Your task to perform on an android device: change timer sound Image 0: 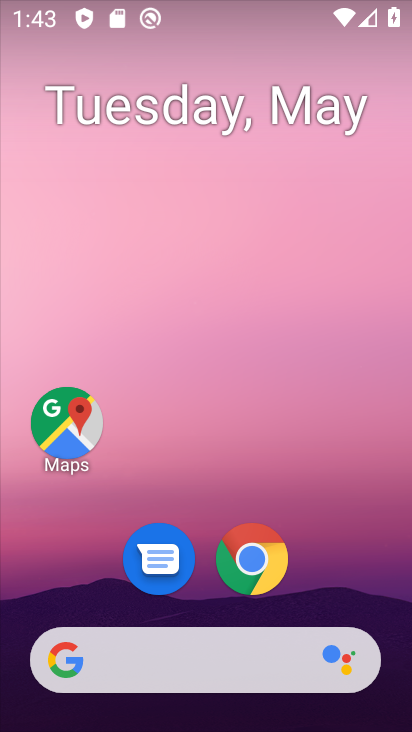
Step 0: drag from (387, 577) to (325, 101)
Your task to perform on an android device: change timer sound Image 1: 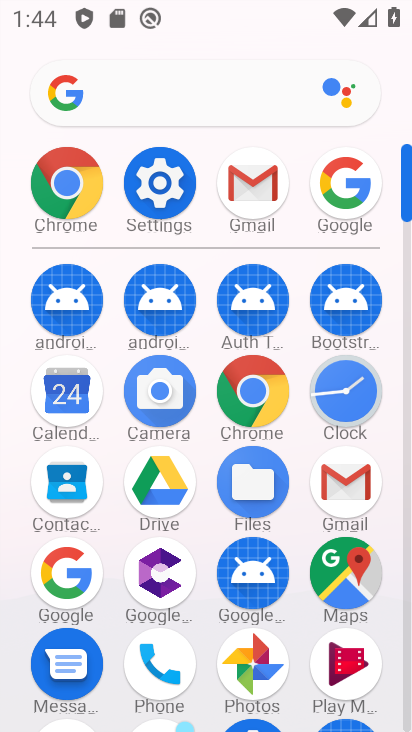
Step 1: click (335, 400)
Your task to perform on an android device: change timer sound Image 2: 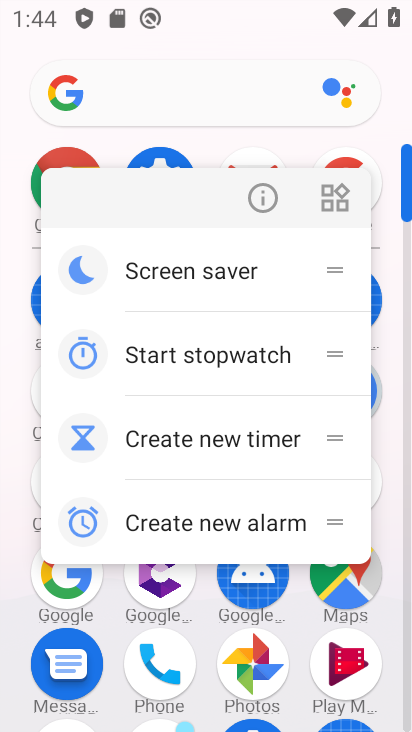
Step 2: click (391, 401)
Your task to perform on an android device: change timer sound Image 3: 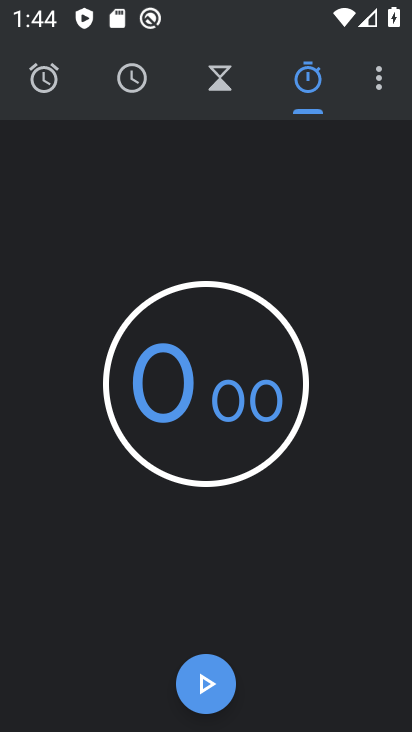
Step 3: click (383, 79)
Your task to perform on an android device: change timer sound Image 4: 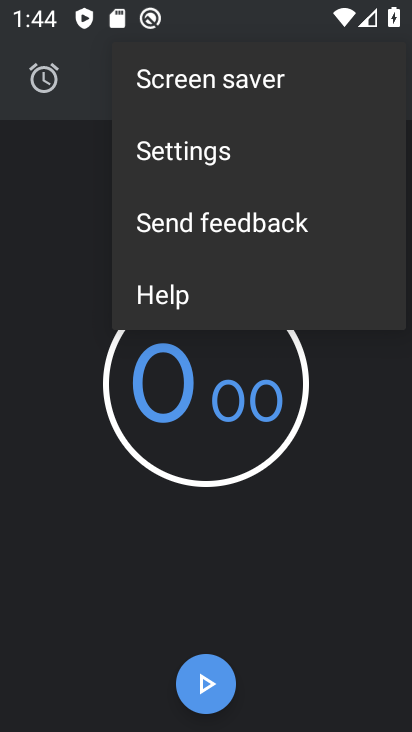
Step 4: click (245, 147)
Your task to perform on an android device: change timer sound Image 5: 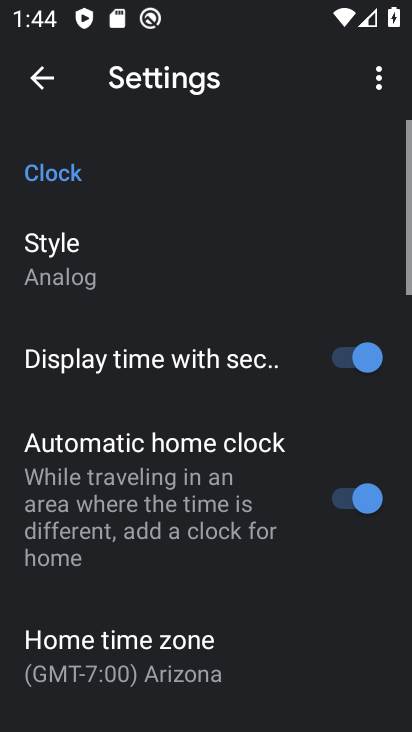
Step 5: drag from (215, 639) to (294, 82)
Your task to perform on an android device: change timer sound Image 6: 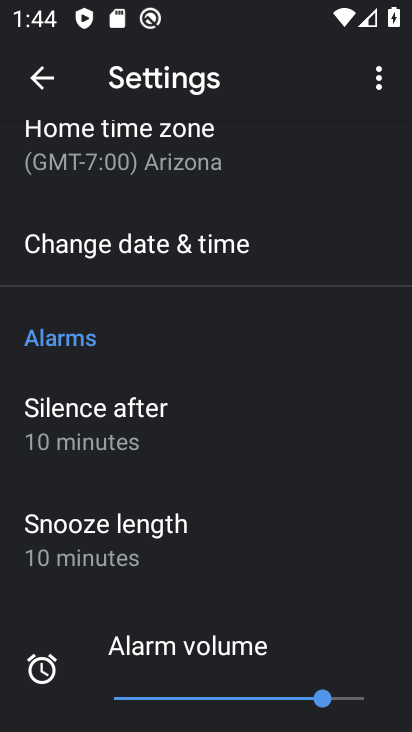
Step 6: drag from (238, 587) to (302, 143)
Your task to perform on an android device: change timer sound Image 7: 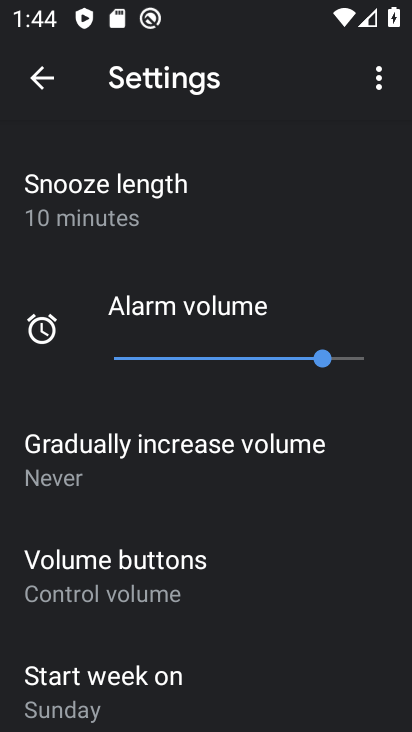
Step 7: drag from (162, 633) to (246, 241)
Your task to perform on an android device: change timer sound Image 8: 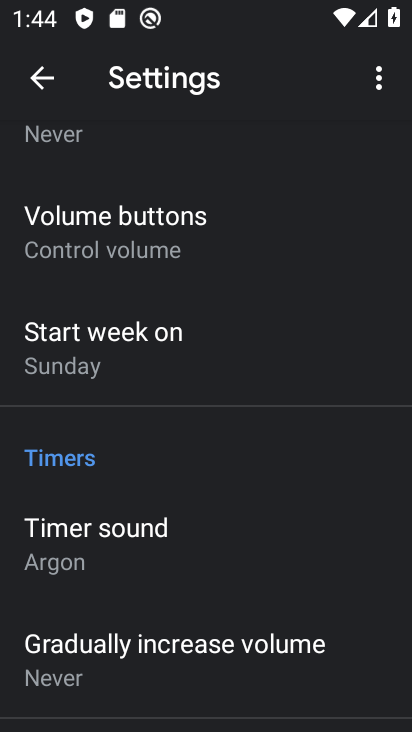
Step 8: click (193, 543)
Your task to perform on an android device: change timer sound Image 9: 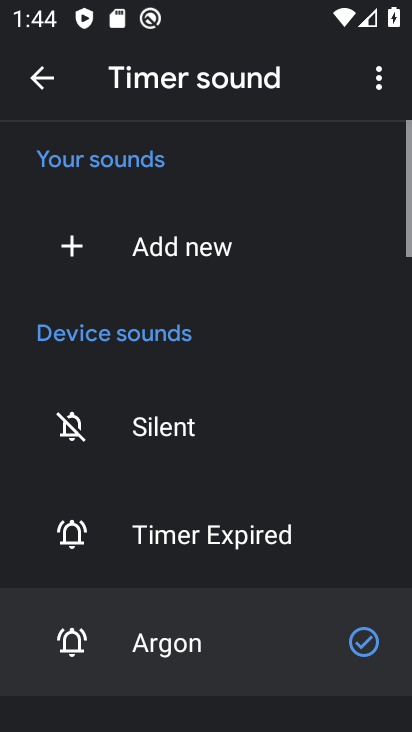
Step 9: click (265, 265)
Your task to perform on an android device: change timer sound Image 10: 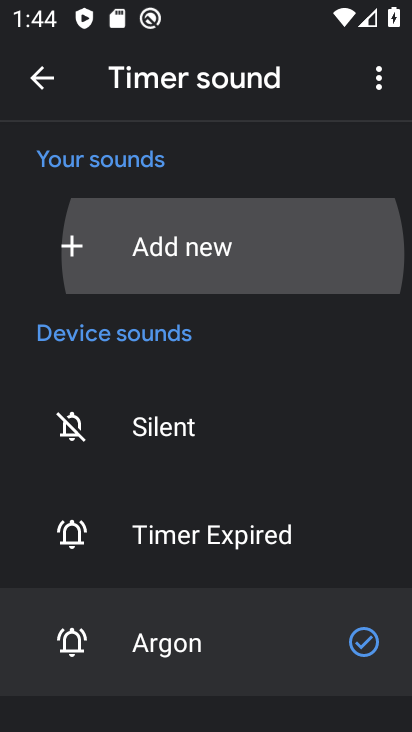
Step 10: drag from (206, 545) to (227, 191)
Your task to perform on an android device: change timer sound Image 11: 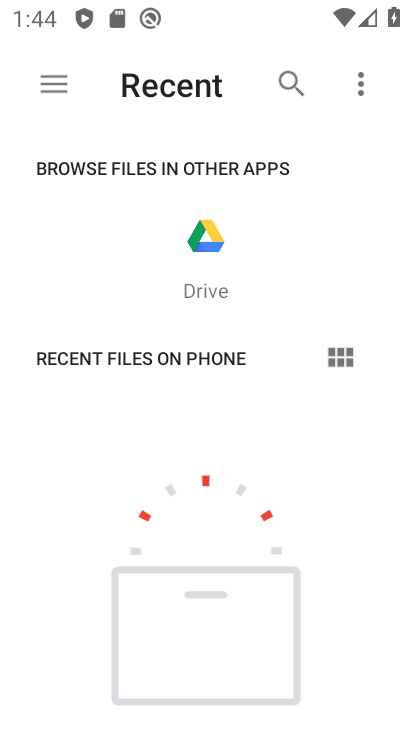
Step 11: press back button
Your task to perform on an android device: change timer sound Image 12: 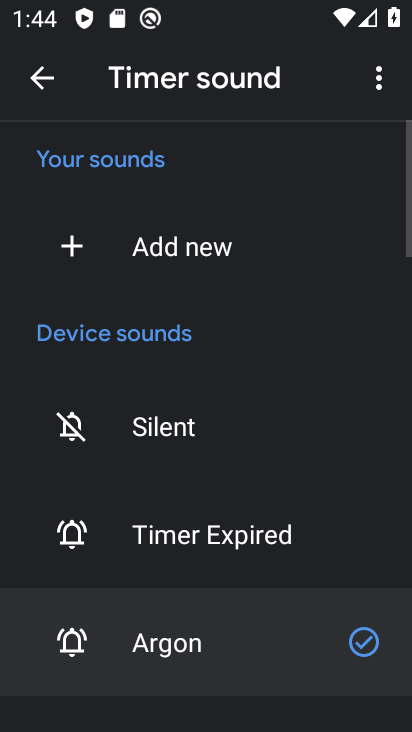
Step 12: drag from (228, 578) to (254, 135)
Your task to perform on an android device: change timer sound Image 13: 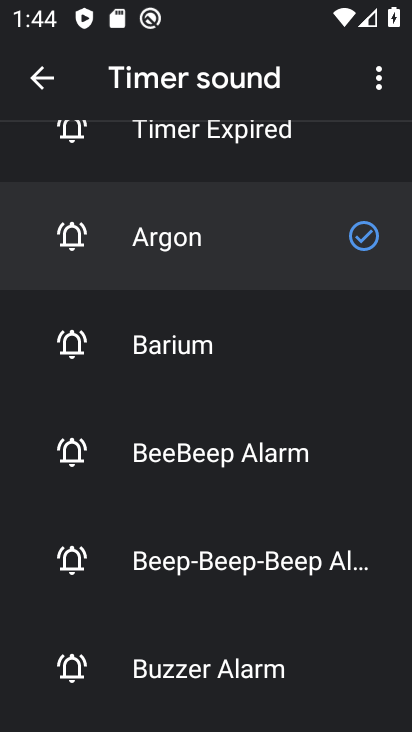
Step 13: click (209, 378)
Your task to perform on an android device: change timer sound Image 14: 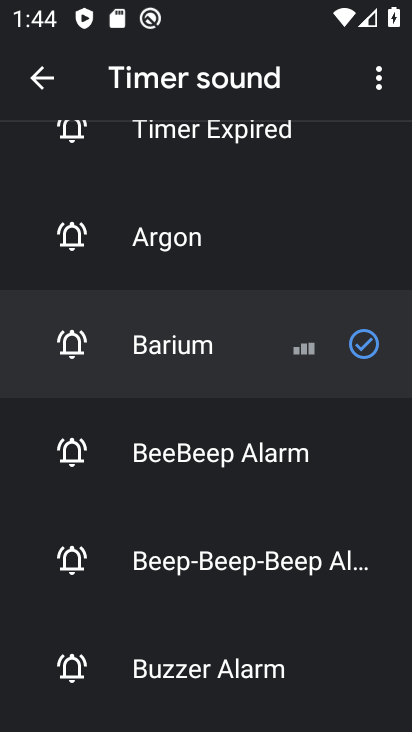
Step 14: task complete